Your task to perform on an android device: Add bose quietcomfort 35 to the cart on newegg.com Image 0: 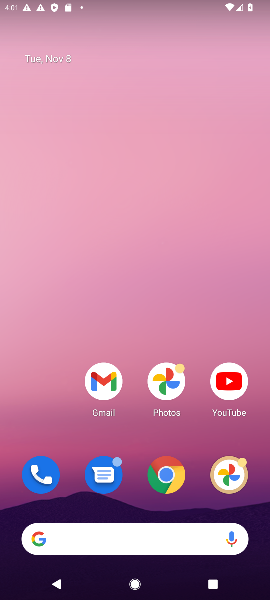
Step 0: drag from (122, 533) to (121, 144)
Your task to perform on an android device: Add bose quietcomfort 35 to the cart on newegg.com Image 1: 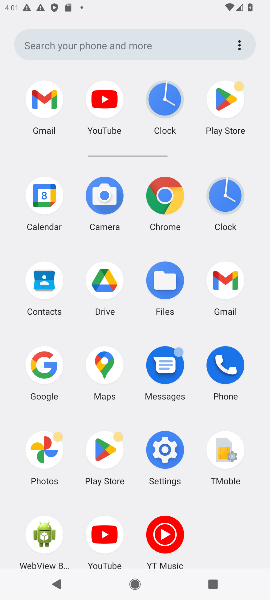
Step 1: click (42, 352)
Your task to perform on an android device: Add bose quietcomfort 35 to the cart on newegg.com Image 2: 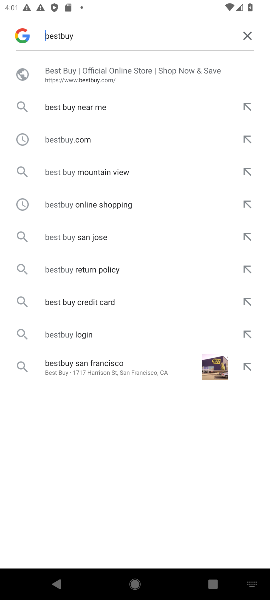
Step 2: click (254, 34)
Your task to perform on an android device: Add bose quietcomfort 35 to the cart on newegg.com Image 3: 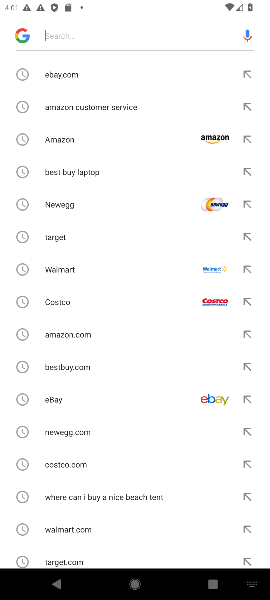
Step 3: click (122, 35)
Your task to perform on an android device: Add bose quietcomfort 35 to the cart on newegg.com Image 4: 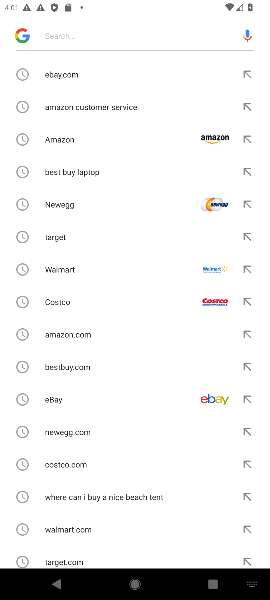
Step 4: click (122, 35)
Your task to perform on an android device: Add bose quietcomfort 35 to the cart on newegg.com Image 5: 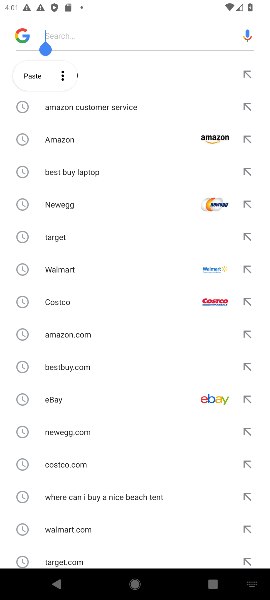
Step 5: type "newegg "
Your task to perform on an android device: Add bose quietcomfort 35 to the cart on newegg.com Image 6: 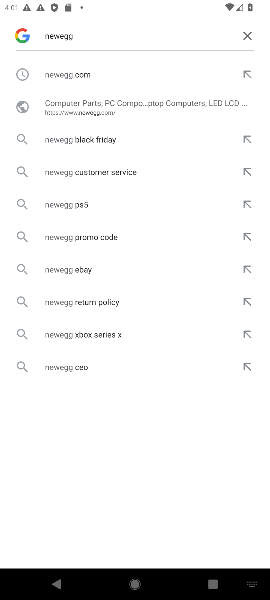
Step 6: click (79, 75)
Your task to perform on an android device: Add bose quietcomfort 35 to the cart on newegg.com Image 7: 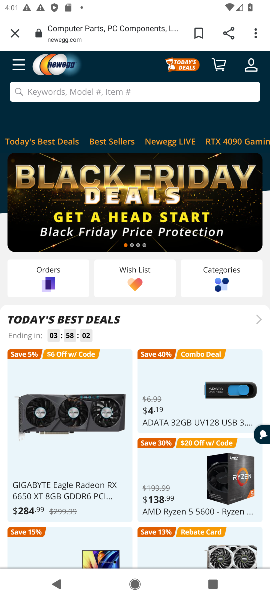
Step 7: click (86, 91)
Your task to perform on an android device: Add bose quietcomfort 35 to the cart on newegg.com Image 8: 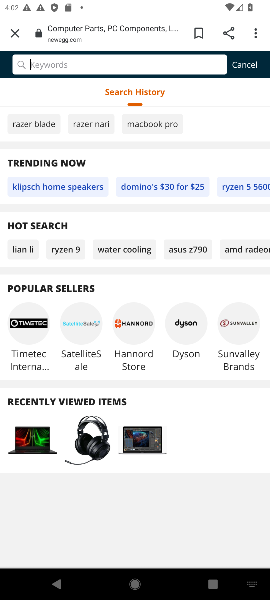
Step 8: click (116, 62)
Your task to perform on an android device: Add bose quietcomfort 35 to the cart on newegg.com Image 9: 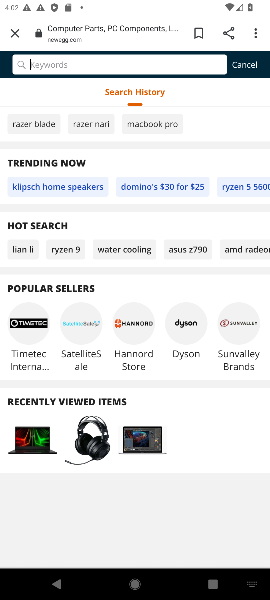
Step 9: type "bose quietcomfort 35 "
Your task to perform on an android device: Add bose quietcomfort 35 to the cart on newegg.com Image 10: 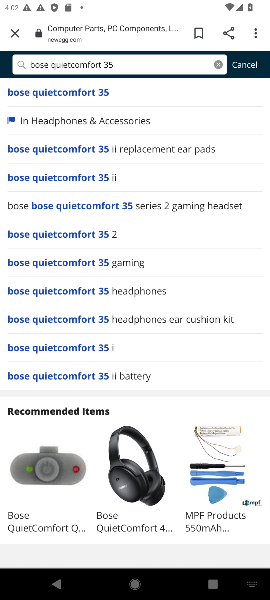
Step 10: click (64, 87)
Your task to perform on an android device: Add bose quietcomfort 35 to the cart on newegg.com Image 11: 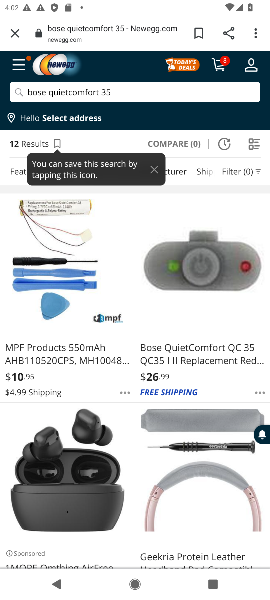
Step 11: drag from (137, 472) to (131, 335)
Your task to perform on an android device: Add bose quietcomfort 35 to the cart on newegg.com Image 12: 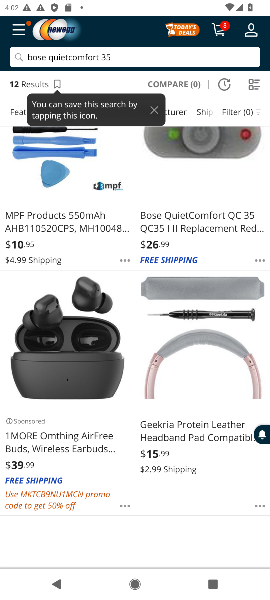
Step 12: click (51, 216)
Your task to perform on an android device: Add bose quietcomfort 35 to the cart on newegg.com Image 13: 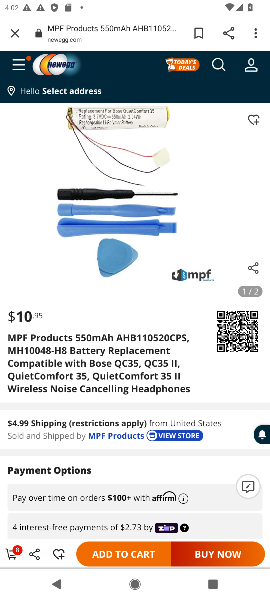
Step 13: click (121, 548)
Your task to perform on an android device: Add bose quietcomfort 35 to the cart on newegg.com Image 14: 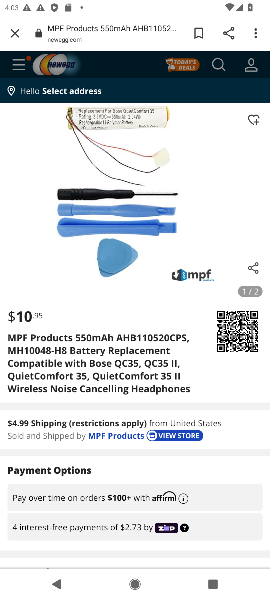
Step 14: drag from (163, 499) to (146, 167)
Your task to perform on an android device: Add bose quietcomfort 35 to the cart on newegg.com Image 15: 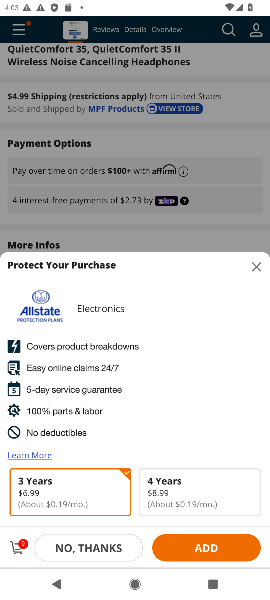
Step 15: click (181, 548)
Your task to perform on an android device: Add bose quietcomfort 35 to the cart on newegg.com Image 16: 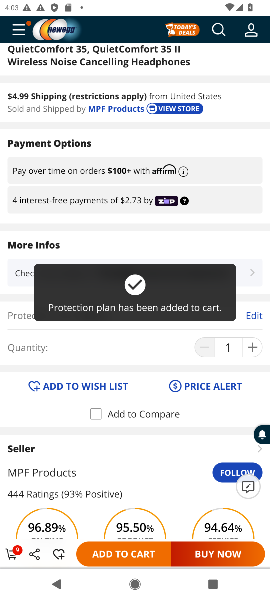
Step 16: task complete